Your task to perform on an android device: turn off wifi Image 0: 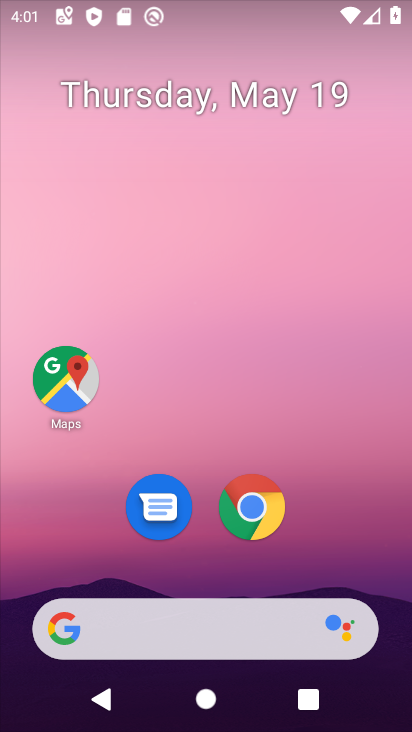
Step 0: press home button
Your task to perform on an android device: turn off wifi Image 1: 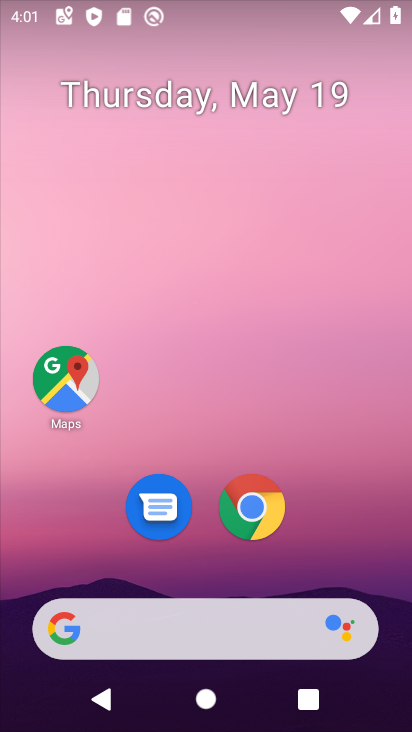
Step 1: drag from (392, 688) to (403, 219)
Your task to perform on an android device: turn off wifi Image 2: 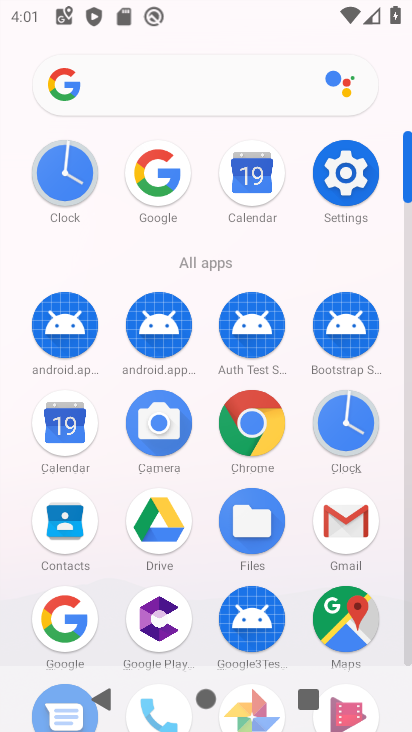
Step 2: click (359, 174)
Your task to perform on an android device: turn off wifi Image 3: 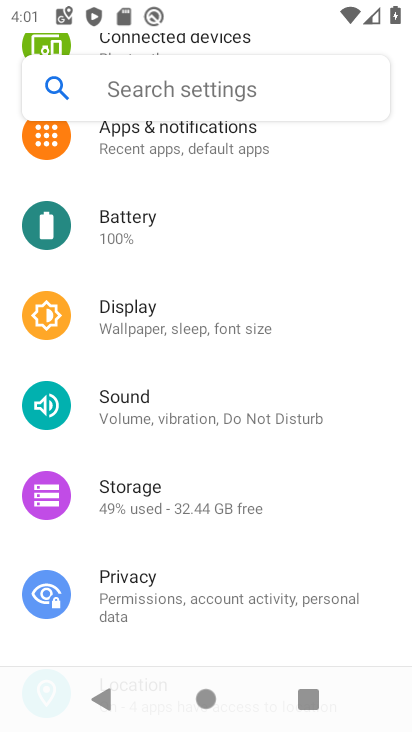
Step 3: drag from (331, 244) to (348, 488)
Your task to perform on an android device: turn off wifi Image 4: 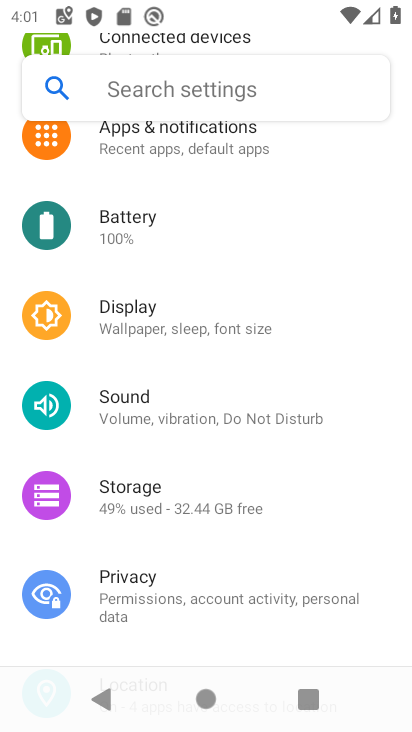
Step 4: drag from (372, 233) to (330, 547)
Your task to perform on an android device: turn off wifi Image 5: 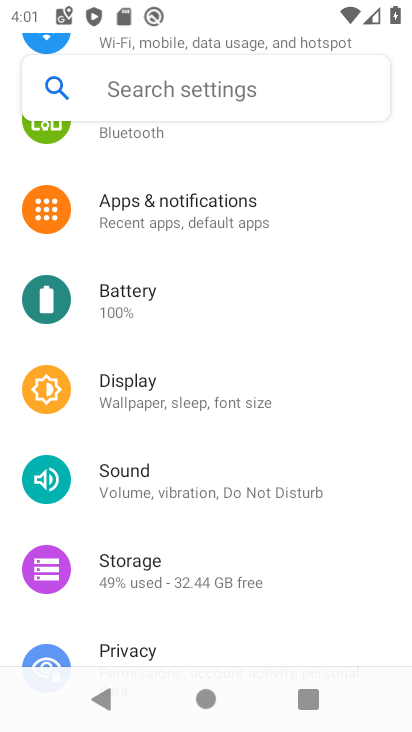
Step 5: click (240, 40)
Your task to perform on an android device: turn off wifi Image 6: 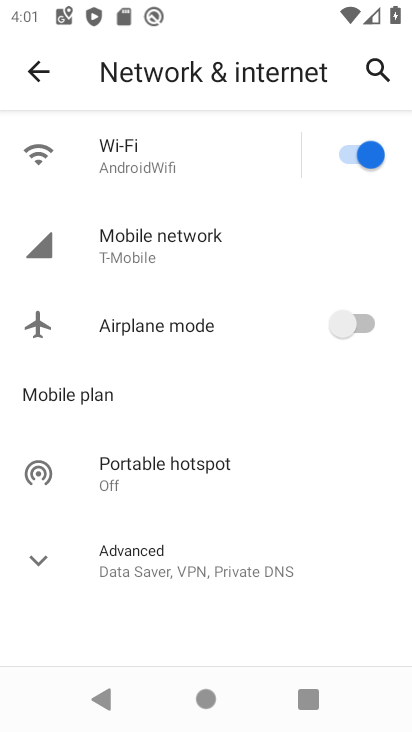
Step 6: click (338, 148)
Your task to perform on an android device: turn off wifi Image 7: 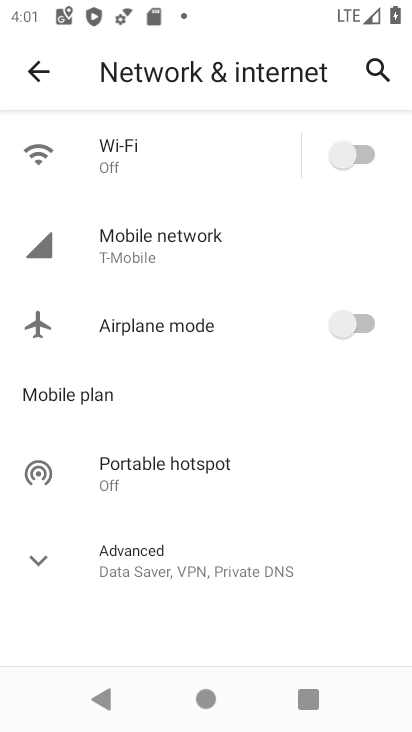
Step 7: task complete